Your task to perform on an android device: change notifications settings Image 0: 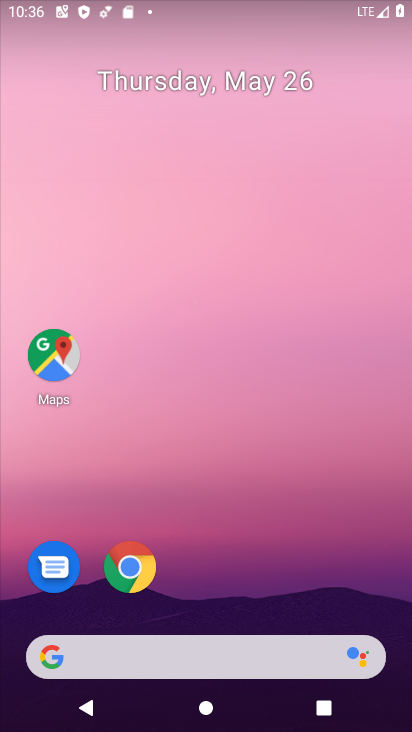
Step 0: drag from (255, 717) to (216, 179)
Your task to perform on an android device: change notifications settings Image 1: 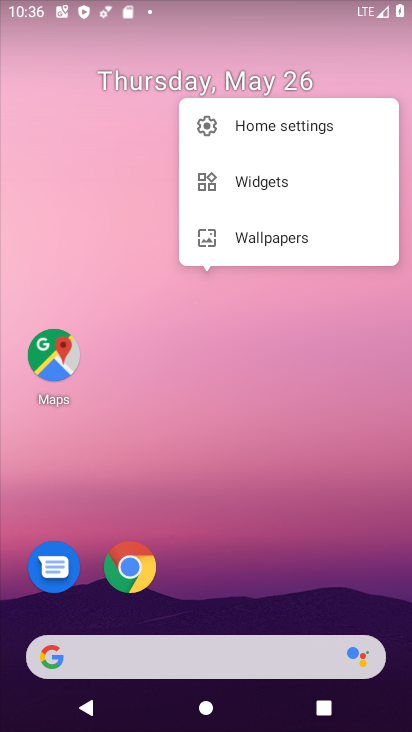
Step 1: press home button
Your task to perform on an android device: change notifications settings Image 2: 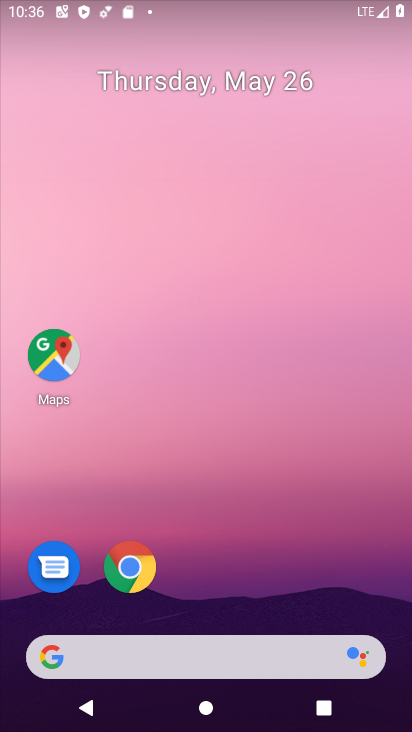
Step 2: drag from (273, 710) to (273, 41)
Your task to perform on an android device: change notifications settings Image 3: 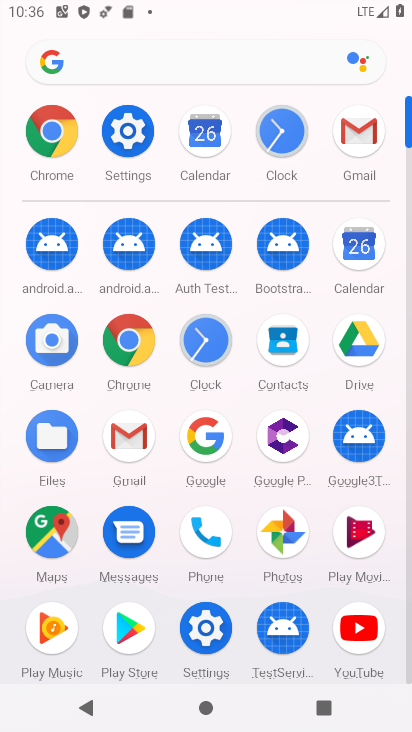
Step 3: click (133, 122)
Your task to perform on an android device: change notifications settings Image 4: 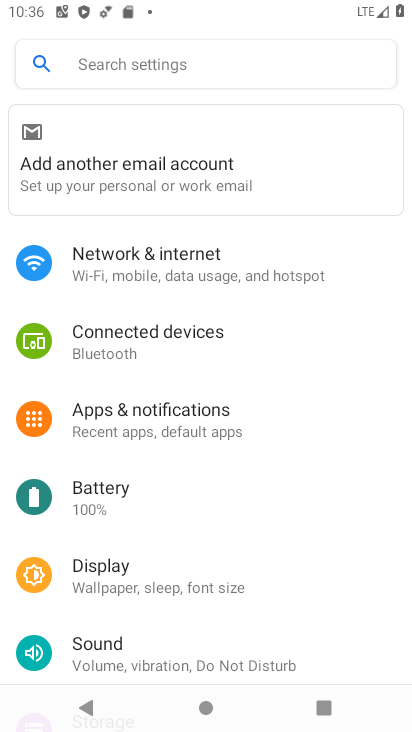
Step 4: click (166, 421)
Your task to perform on an android device: change notifications settings Image 5: 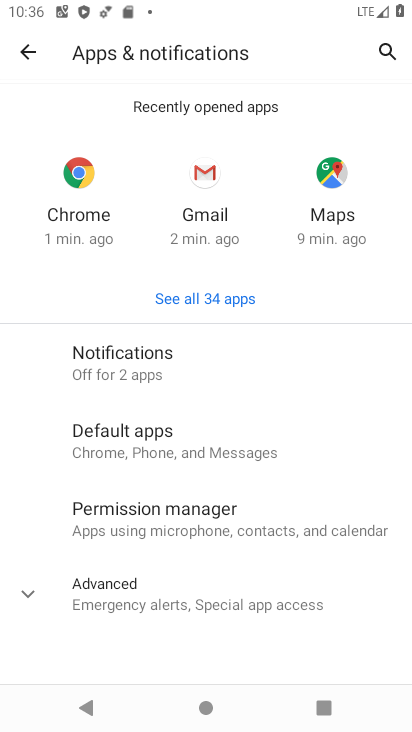
Step 5: click (238, 344)
Your task to perform on an android device: change notifications settings Image 6: 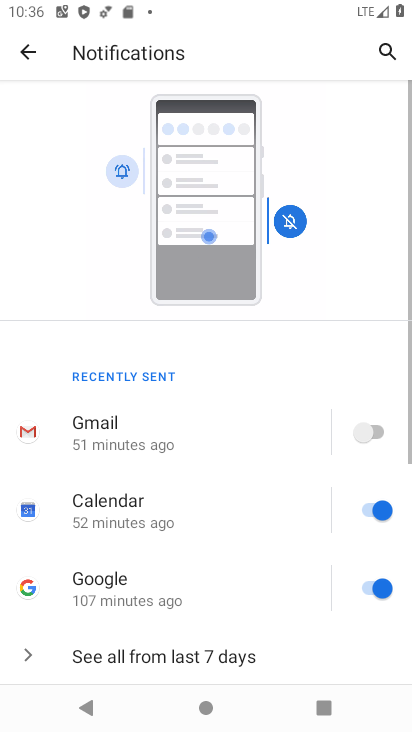
Step 6: click (367, 436)
Your task to perform on an android device: change notifications settings Image 7: 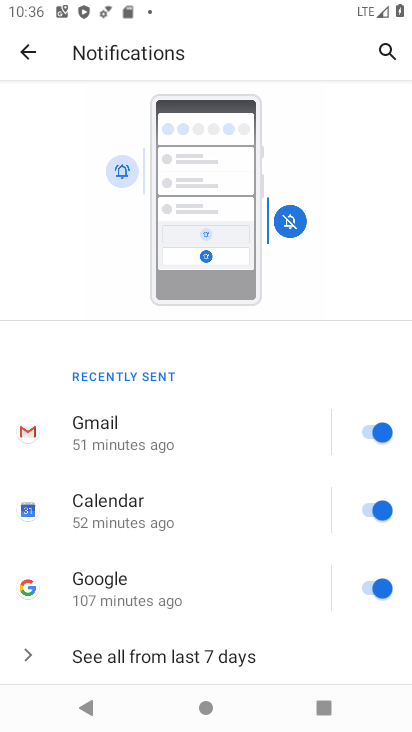
Step 7: task complete